Your task to perform on an android device: Open Maps and search for coffee Image 0: 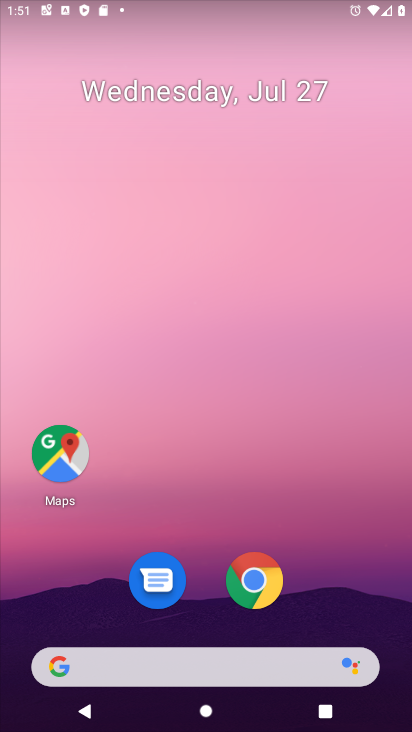
Step 0: click (70, 466)
Your task to perform on an android device: Open Maps and search for coffee Image 1: 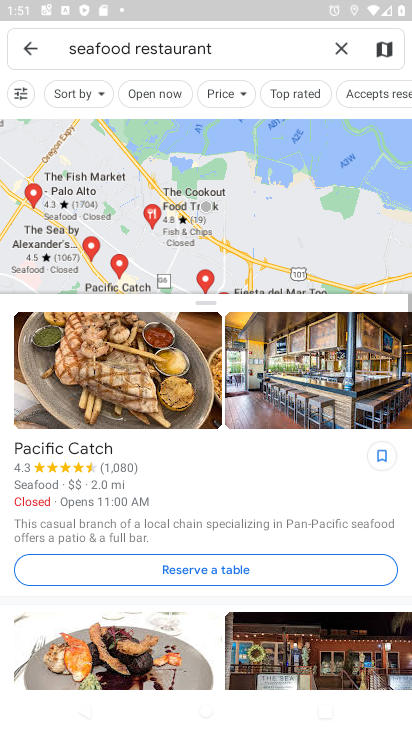
Step 1: click (334, 43)
Your task to perform on an android device: Open Maps and search for coffee Image 2: 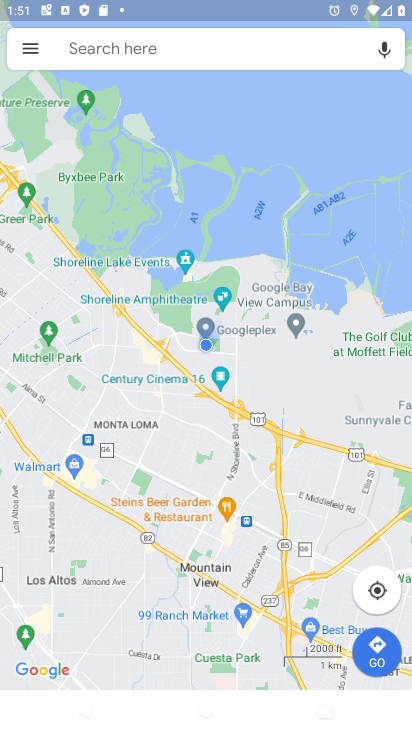
Step 2: click (188, 56)
Your task to perform on an android device: Open Maps and search for coffee Image 3: 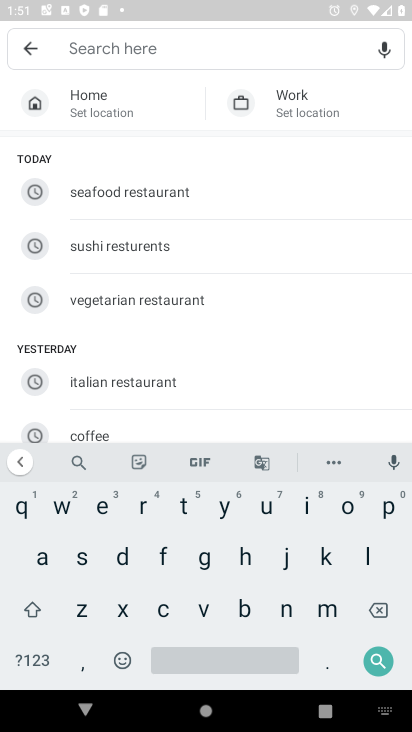
Step 3: click (110, 428)
Your task to perform on an android device: Open Maps and search for coffee Image 4: 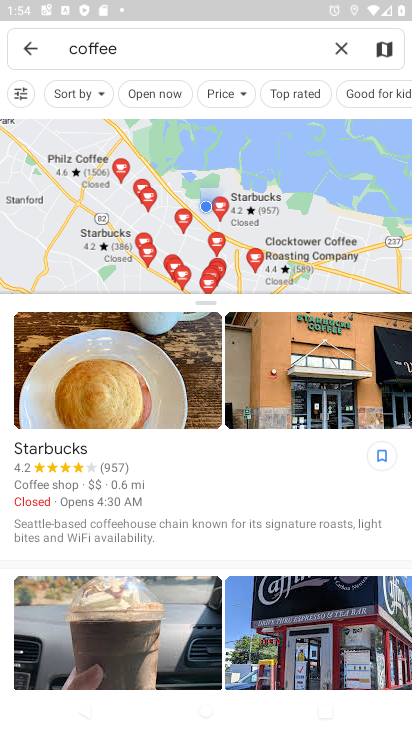
Step 4: task complete